Your task to perform on an android device: turn on wifi Image 0: 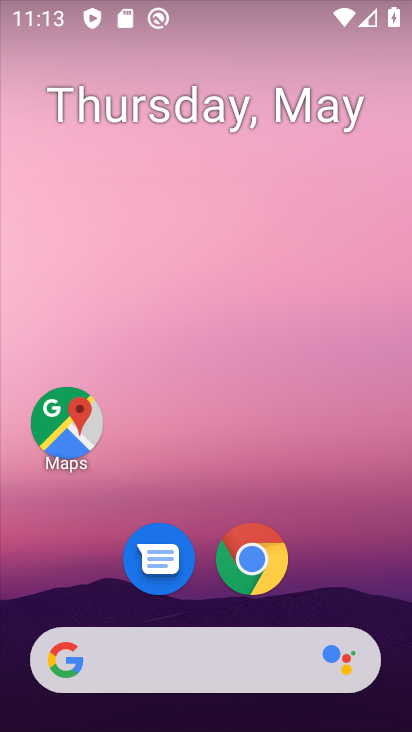
Step 0: drag from (204, 720) to (193, 178)
Your task to perform on an android device: turn on wifi Image 1: 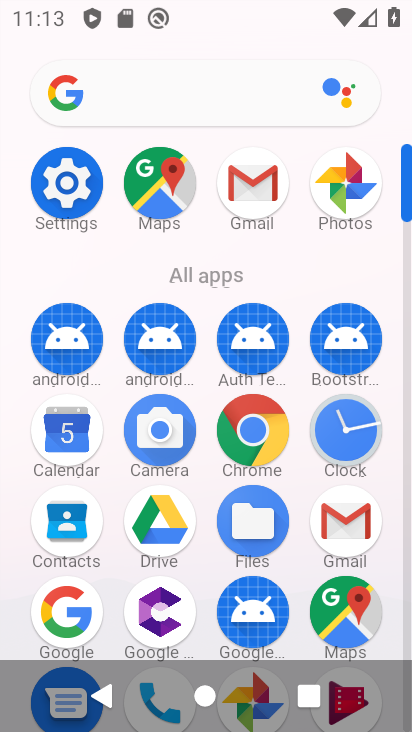
Step 1: click (40, 178)
Your task to perform on an android device: turn on wifi Image 2: 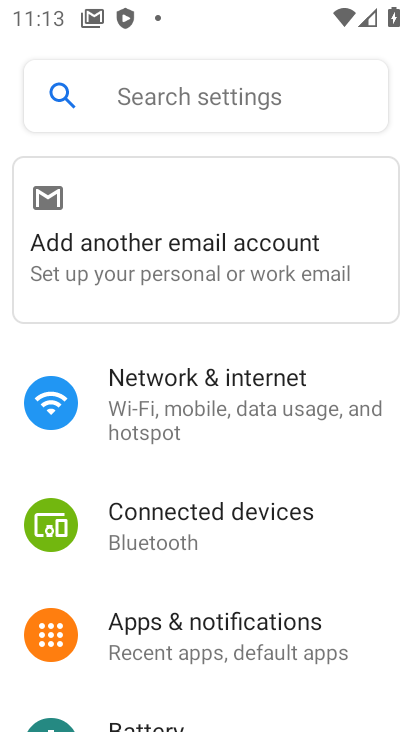
Step 2: click (154, 414)
Your task to perform on an android device: turn on wifi Image 3: 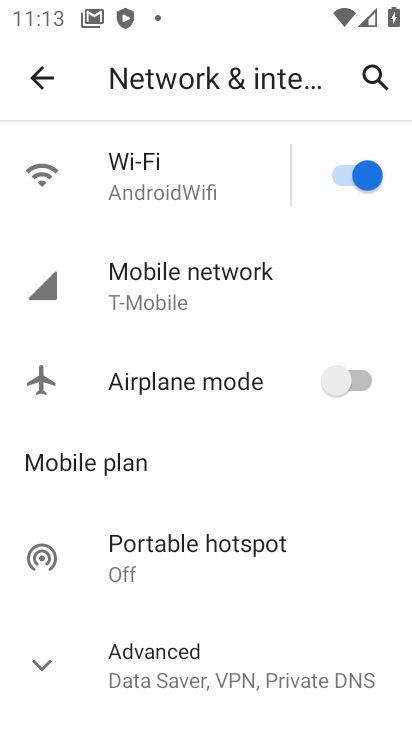
Step 3: click (133, 167)
Your task to perform on an android device: turn on wifi Image 4: 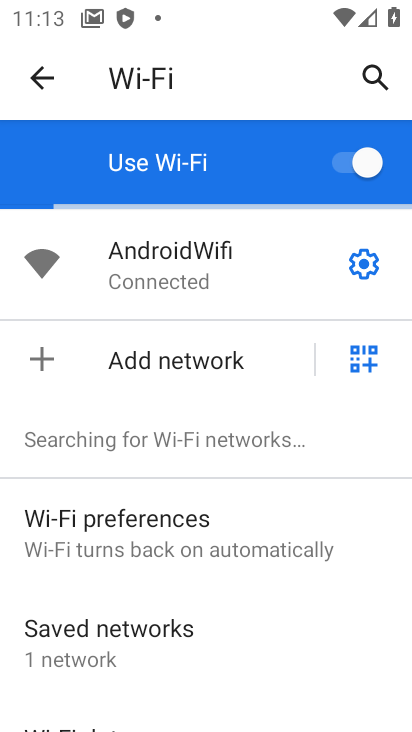
Step 4: task complete